Your task to perform on an android device: turn off sleep mode Image 0: 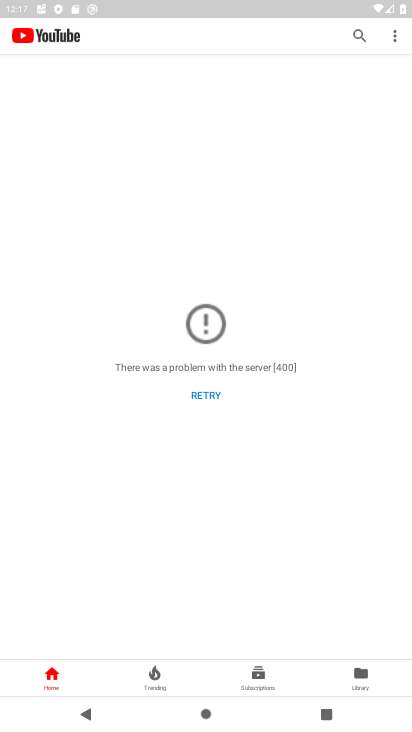
Step 0: press back button
Your task to perform on an android device: turn off sleep mode Image 1: 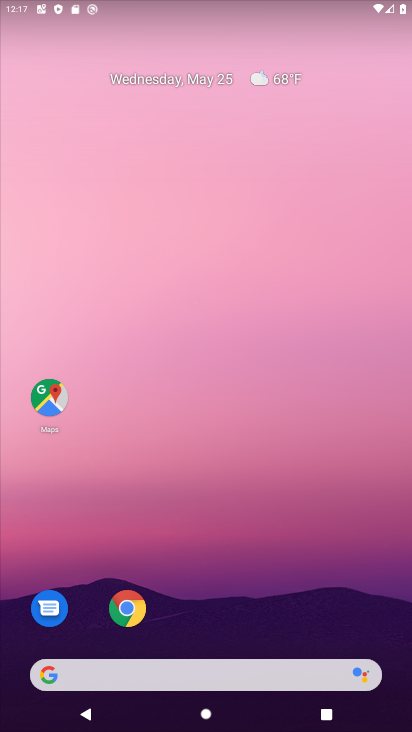
Step 1: drag from (321, 561) to (255, 119)
Your task to perform on an android device: turn off sleep mode Image 2: 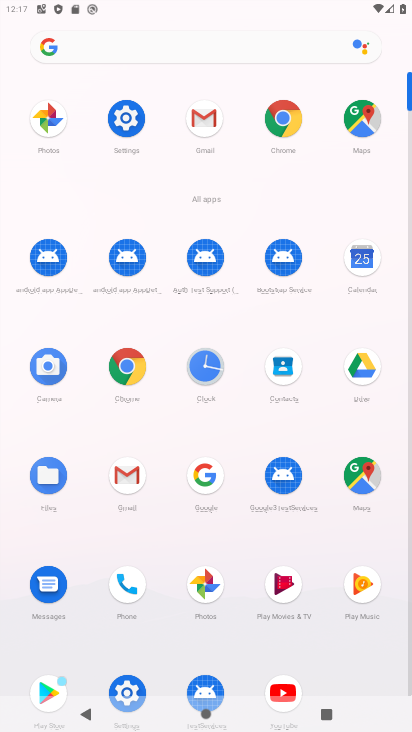
Step 2: click (127, 678)
Your task to perform on an android device: turn off sleep mode Image 3: 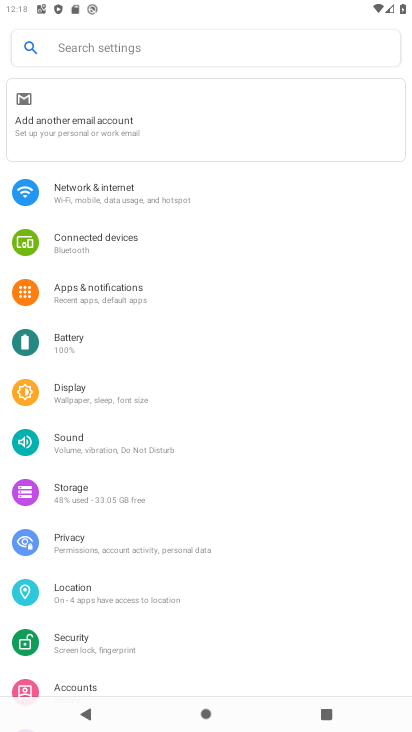
Step 3: drag from (177, 550) to (218, 108)
Your task to perform on an android device: turn off sleep mode Image 4: 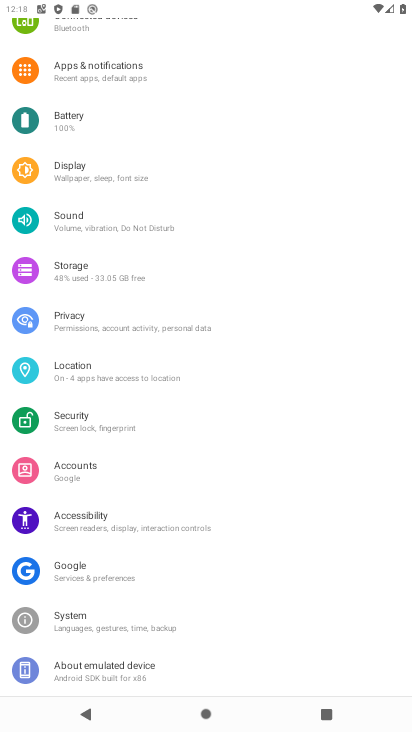
Step 4: click (100, 164)
Your task to perform on an android device: turn off sleep mode Image 5: 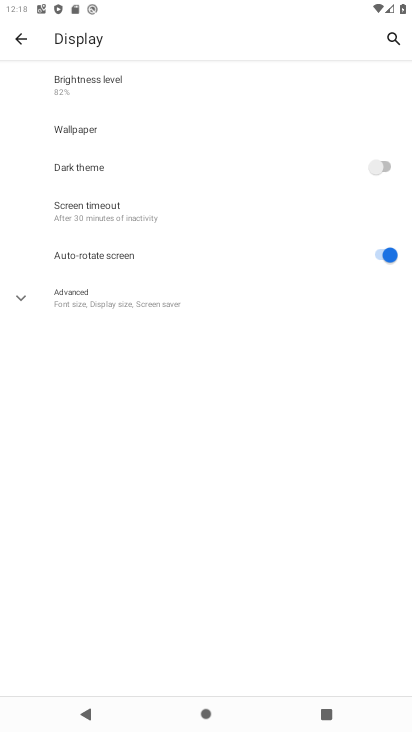
Step 5: click (261, 162)
Your task to perform on an android device: turn off sleep mode Image 6: 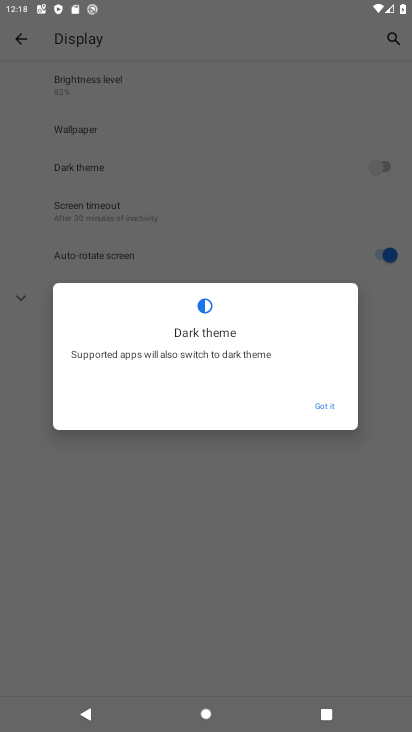
Step 6: task complete